Your task to perform on an android device: What is the recent news? Image 0: 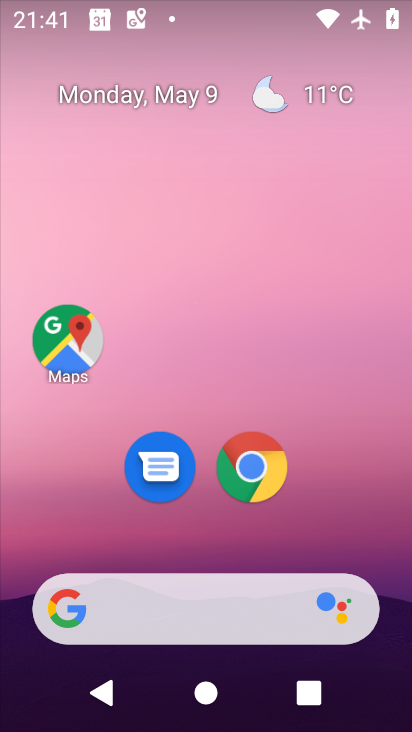
Step 0: drag from (320, 476) to (324, 302)
Your task to perform on an android device: What is the recent news? Image 1: 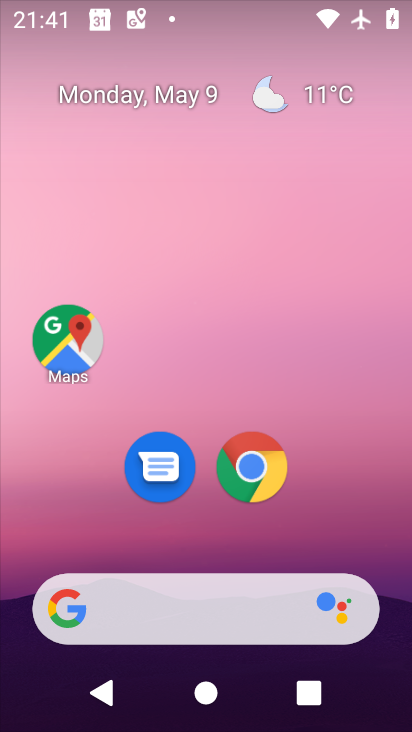
Step 1: drag from (345, 350) to (346, 229)
Your task to perform on an android device: What is the recent news? Image 2: 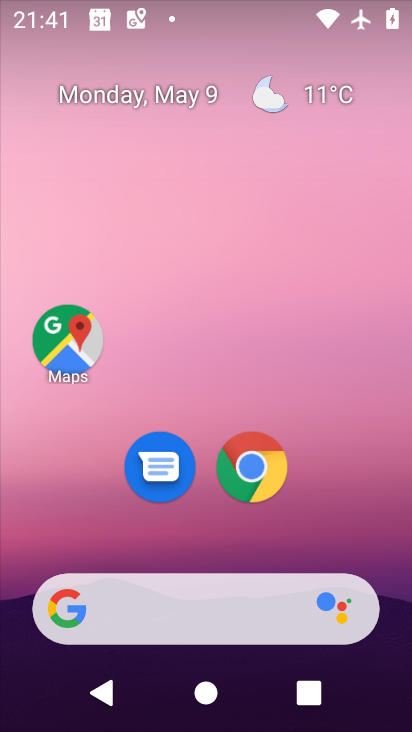
Step 2: drag from (307, 518) to (356, 117)
Your task to perform on an android device: What is the recent news? Image 3: 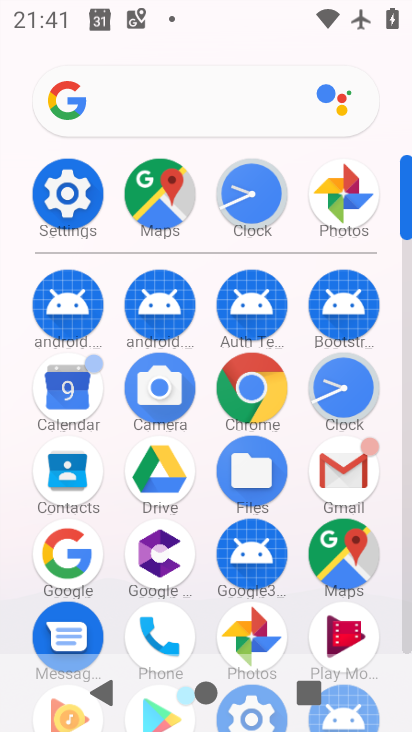
Step 3: click (261, 391)
Your task to perform on an android device: What is the recent news? Image 4: 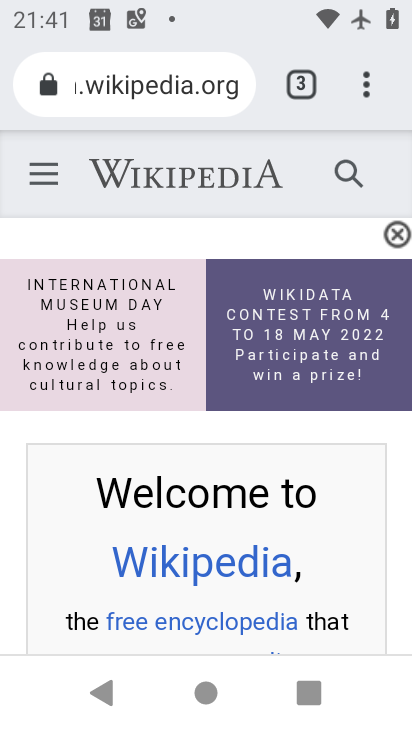
Step 4: click (361, 84)
Your task to perform on an android device: What is the recent news? Image 5: 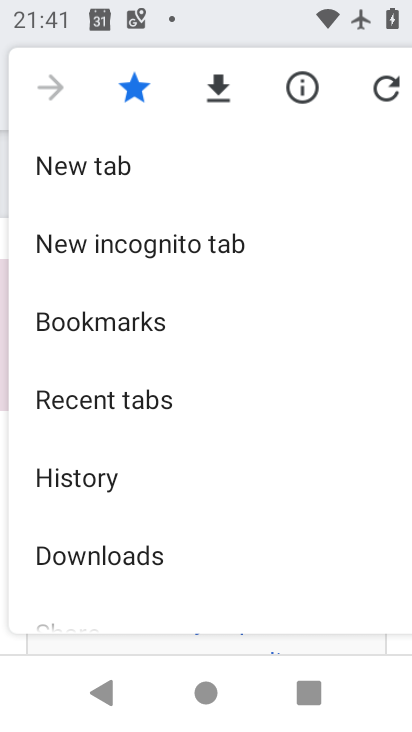
Step 5: click (146, 169)
Your task to perform on an android device: What is the recent news? Image 6: 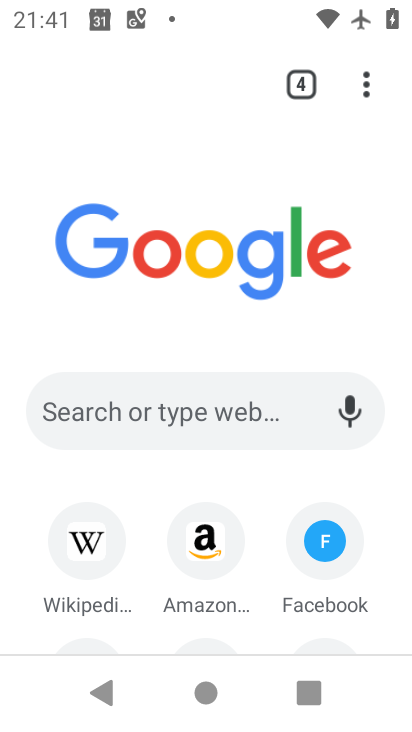
Step 6: click (145, 404)
Your task to perform on an android device: What is the recent news? Image 7: 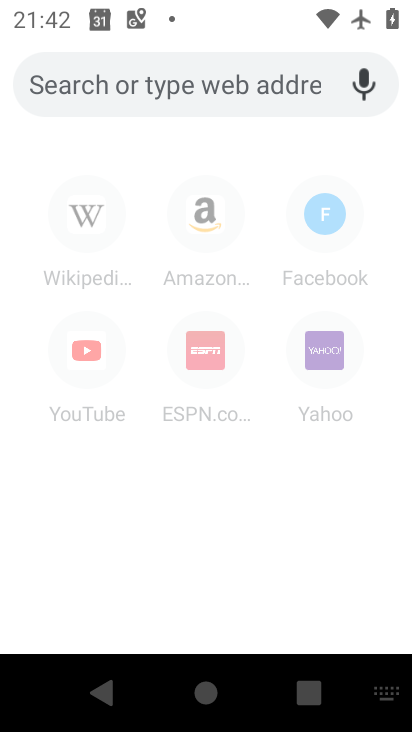
Step 7: type "What is the recent news?"
Your task to perform on an android device: What is the recent news? Image 8: 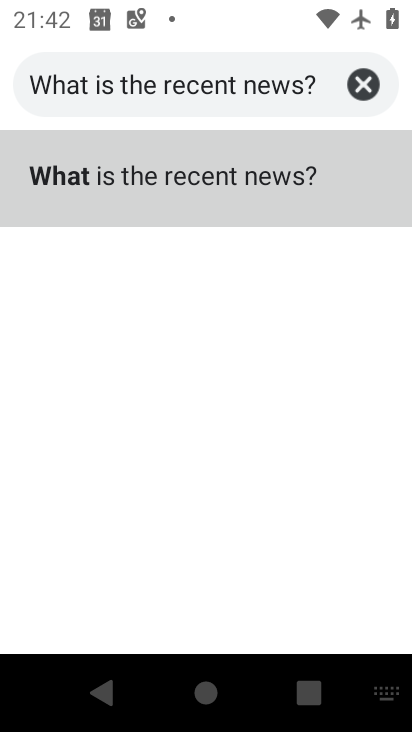
Step 8: click (145, 168)
Your task to perform on an android device: What is the recent news? Image 9: 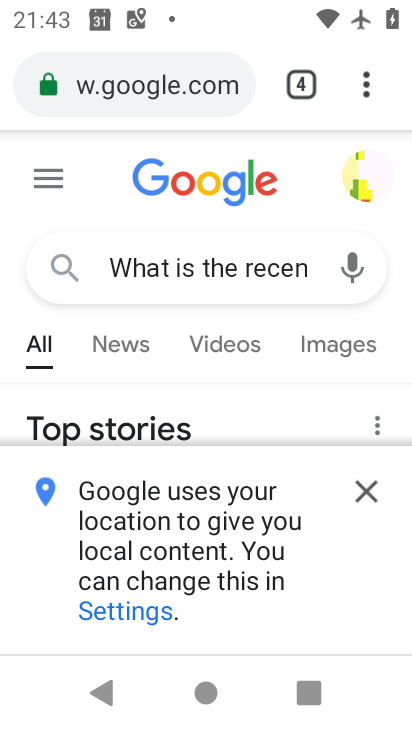
Step 9: task complete